Your task to perform on an android device: Search for pizza restaurants on Maps Image 0: 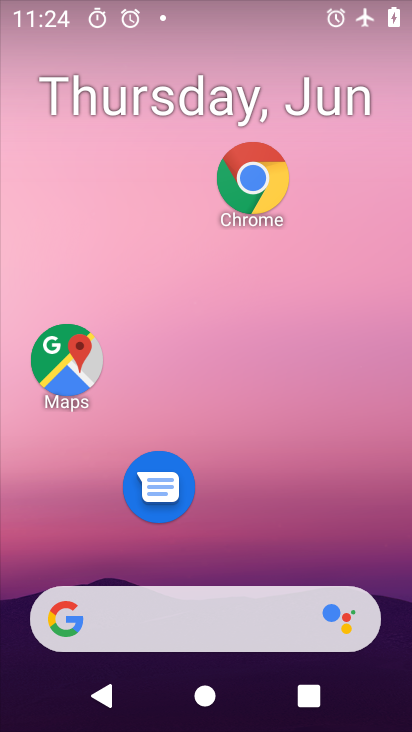
Step 0: drag from (235, 727) to (234, 112)
Your task to perform on an android device: Search for pizza restaurants on Maps Image 1: 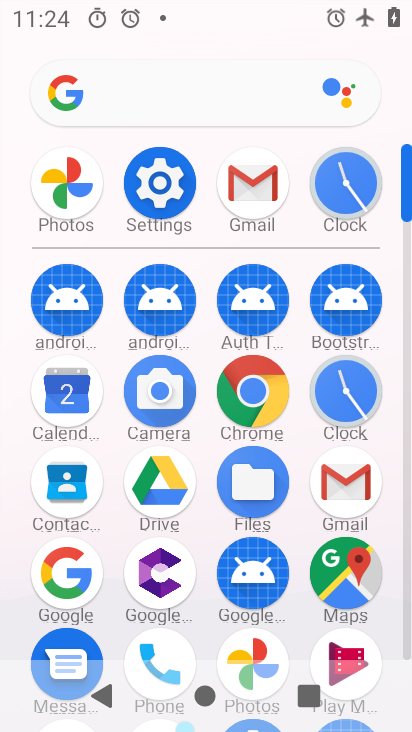
Step 1: click (335, 582)
Your task to perform on an android device: Search for pizza restaurants on Maps Image 2: 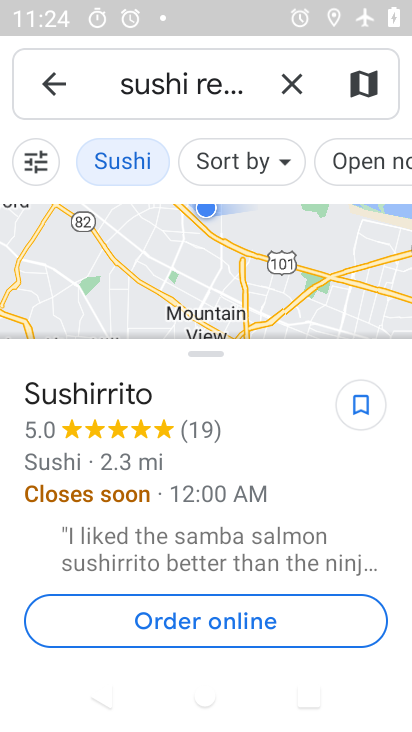
Step 2: click (298, 75)
Your task to perform on an android device: Search for pizza restaurants on Maps Image 3: 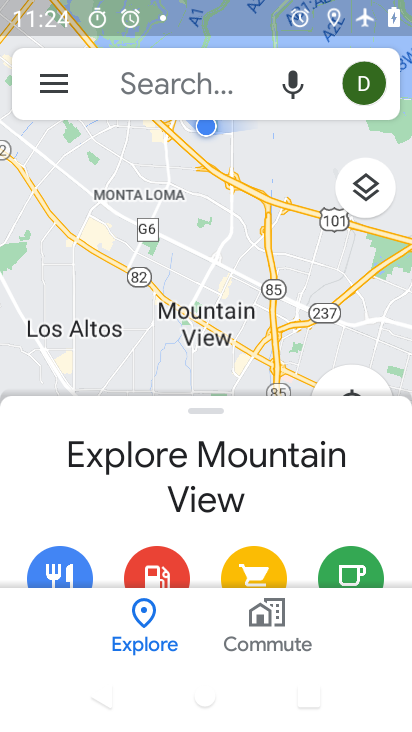
Step 3: click (207, 89)
Your task to perform on an android device: Search for pizza restaurants on Maps Image 4: 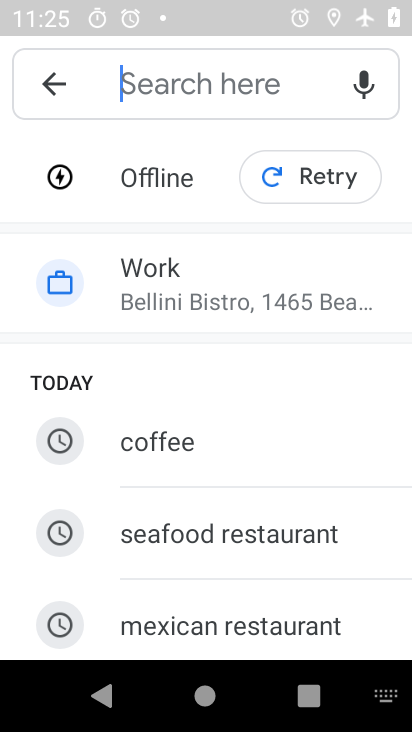
Step 4: type "pizza restaurants"
Your task to perform on an android device: Search for pizza restaurants on Maps Image 5: 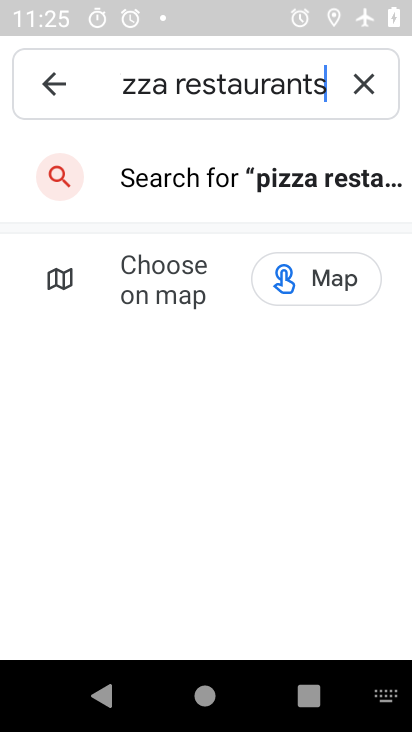
Step 5: click (297, 179)
Your task to perform on an android device: Search for pizza restaurants on Maps Image 6: 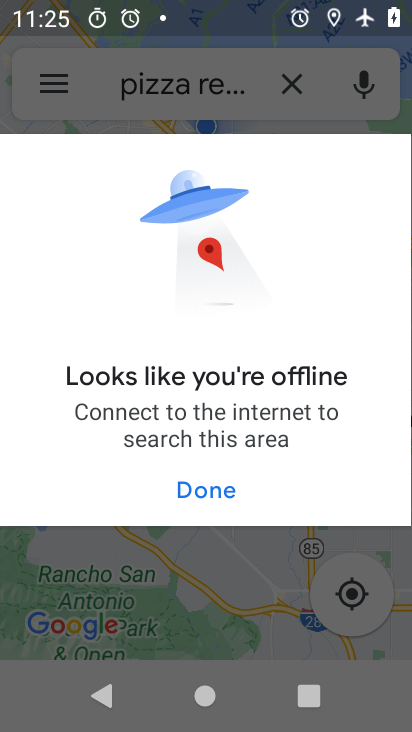
Step 6: task complete